Your task to perform on an android device: Open network settings Image 0: 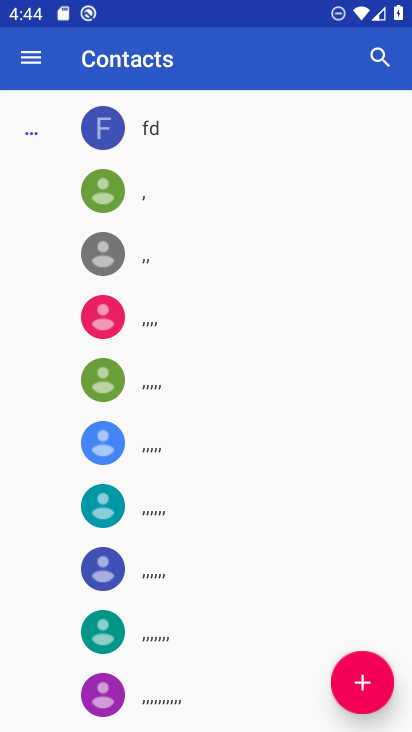
Step 0: press home button
Your task to perform on an android device: Open network settings Image 1: 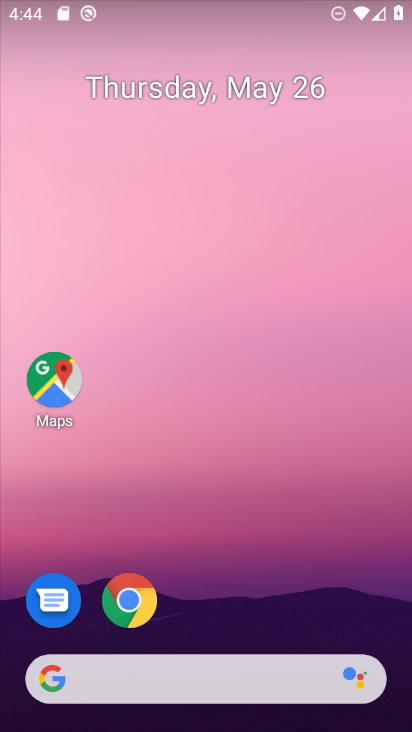
Step 1: drag from (221, 624) to (301, 134)
Your task to perform on an android device: Open network settings Image 2: 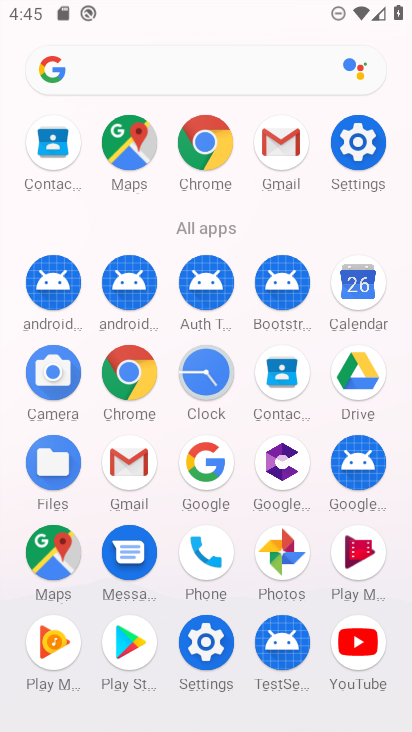
Step 2: click (363, 153)
Your task to perform on an android device: Open network settings Image 3: 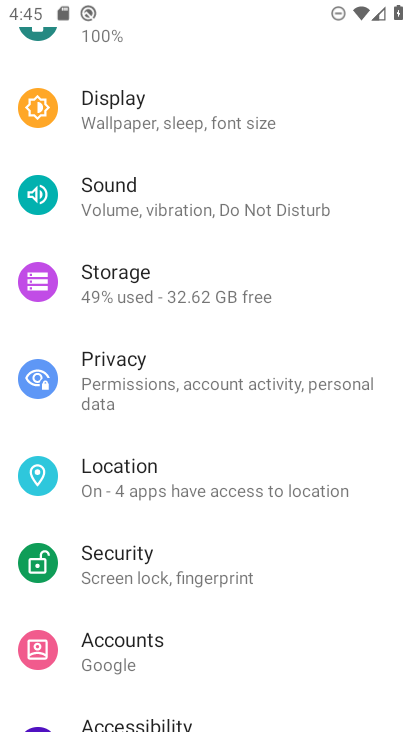
Step 3: drag from (244, 251) to (232, 535)
Your task to perform on an android device: Open network settings Image 4: 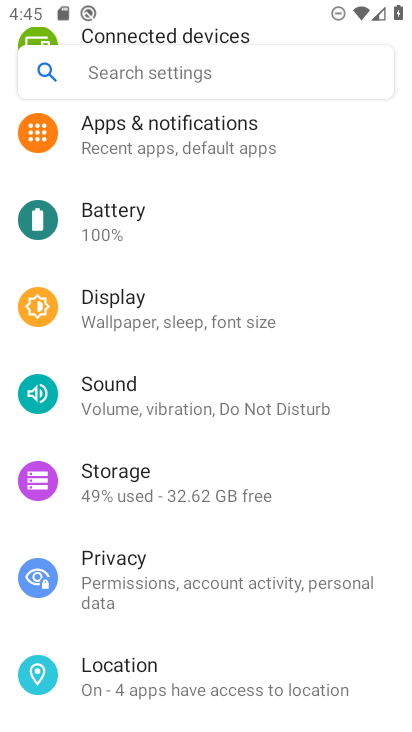
Step 4: drag from (180, 223) to (154, 523)
Your task to perform on an android device: Open network settings Image 5: 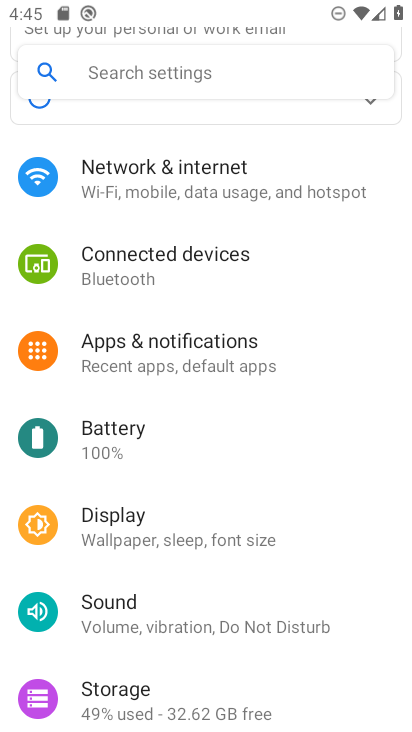
Step 5: click (188, 193)
Your task to perform on an android device: Open network settings Image 6: 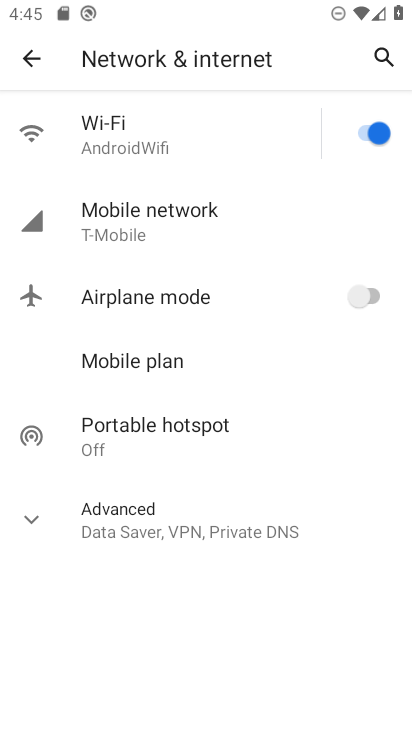
Step 6: task complete